Your task to perform on an android device: Go to display settings Image 0: 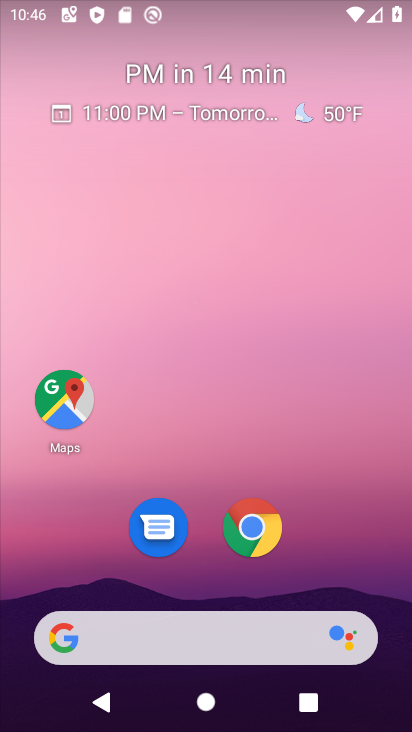
Step 0: drag from (313, 579) to (285, 246)
Your task to perform on an android device: Go to display settings Image 1: 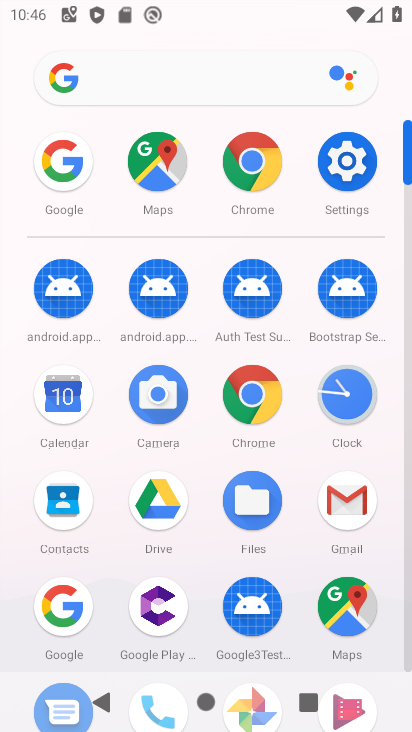
Step 1: click (368, 157)
Your task to perform on an android device: Go to display settings Image 2: 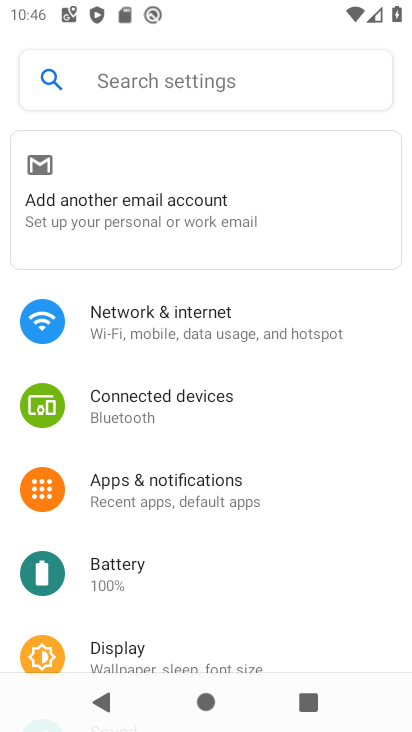
Step 2: click (174, 661)
Your task to perform on an android device: Go to display settings Image 3: 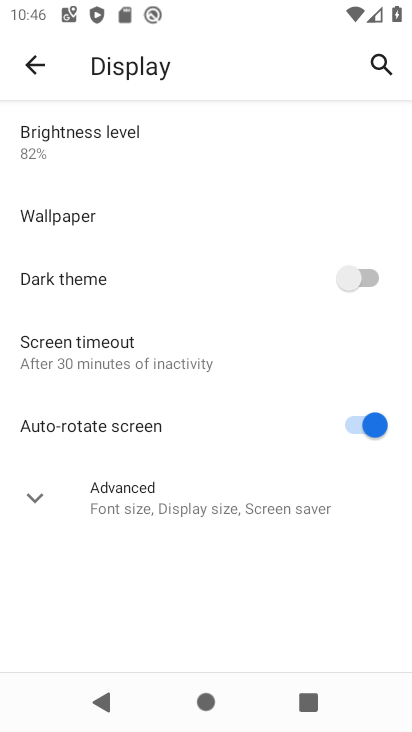
Step 3: click (125, 488)
Your task to perform on an android device: Go to display settings Image 4: 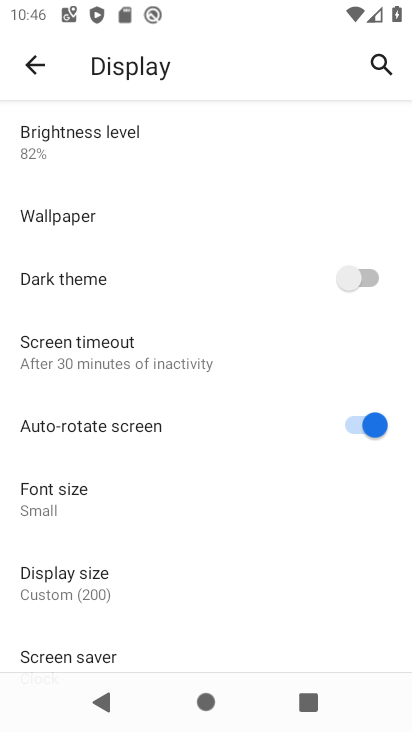
Step 4: task complete